Your task to perform on an android device: Go to settings Image 0: 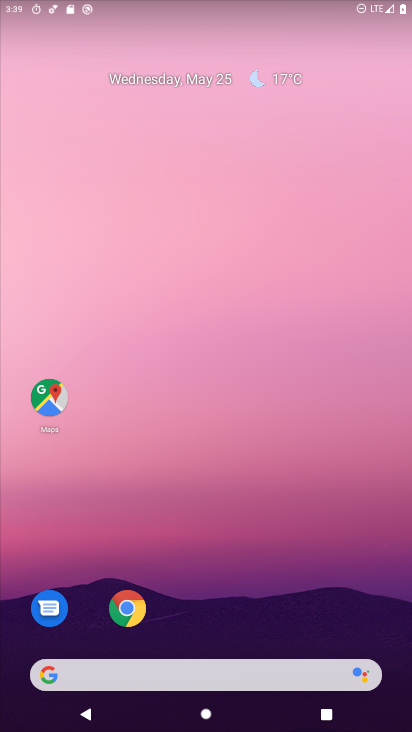
Step 0: drag from (275, 361) to (166, 4)
Your task to perform on an android device: Go to settings Image 1: 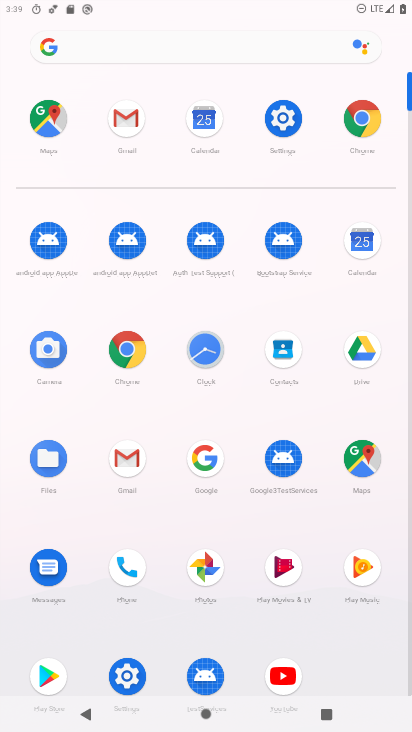
Step 1: click (282, 132)
Your task to perform on an android device: Go to settings Image 2: 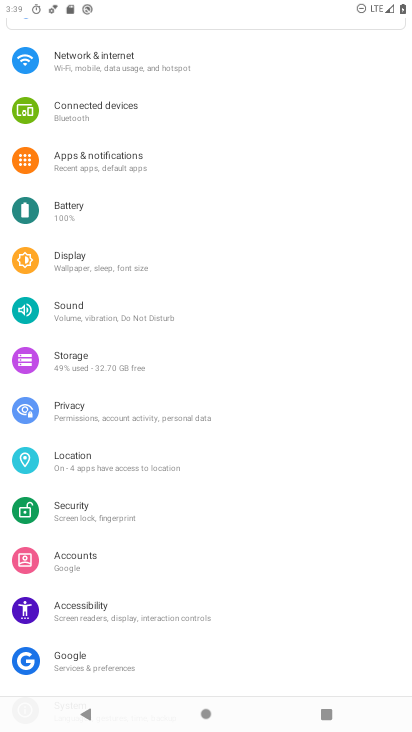
Step 2: task complete